Your task to perform on an android device: Open the map Image 0: 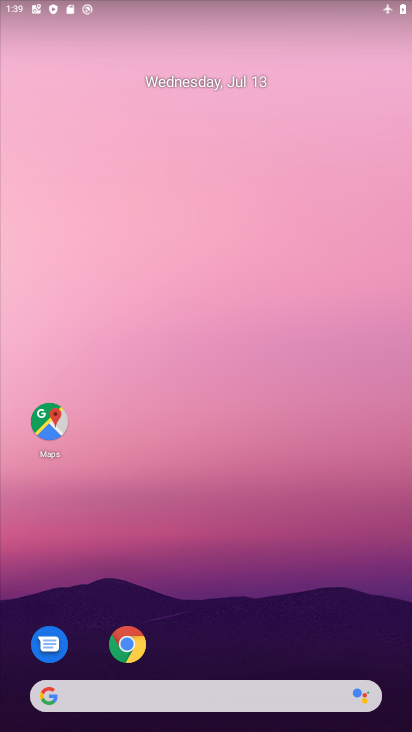
Step 0: click (49, 424)
Your task to perform on an android device: Open the map Image 1: 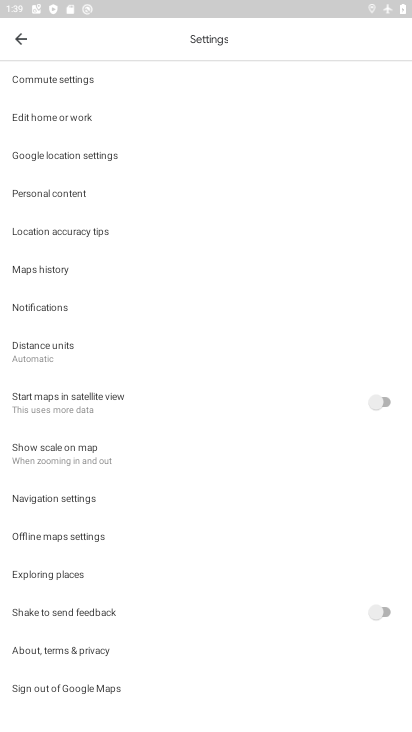
Step 1: click (28, 33)
Your task to perform on an android device: Open the map Image 2: 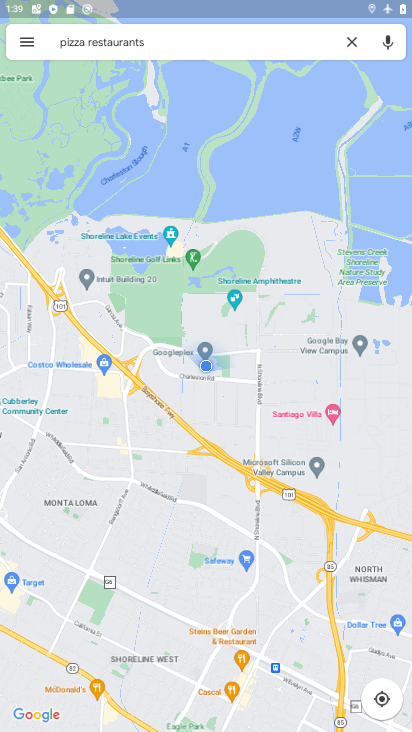
Step 2: task complete